Your task to perform on an android device: turn off smart reply in the gmail app Image 0: 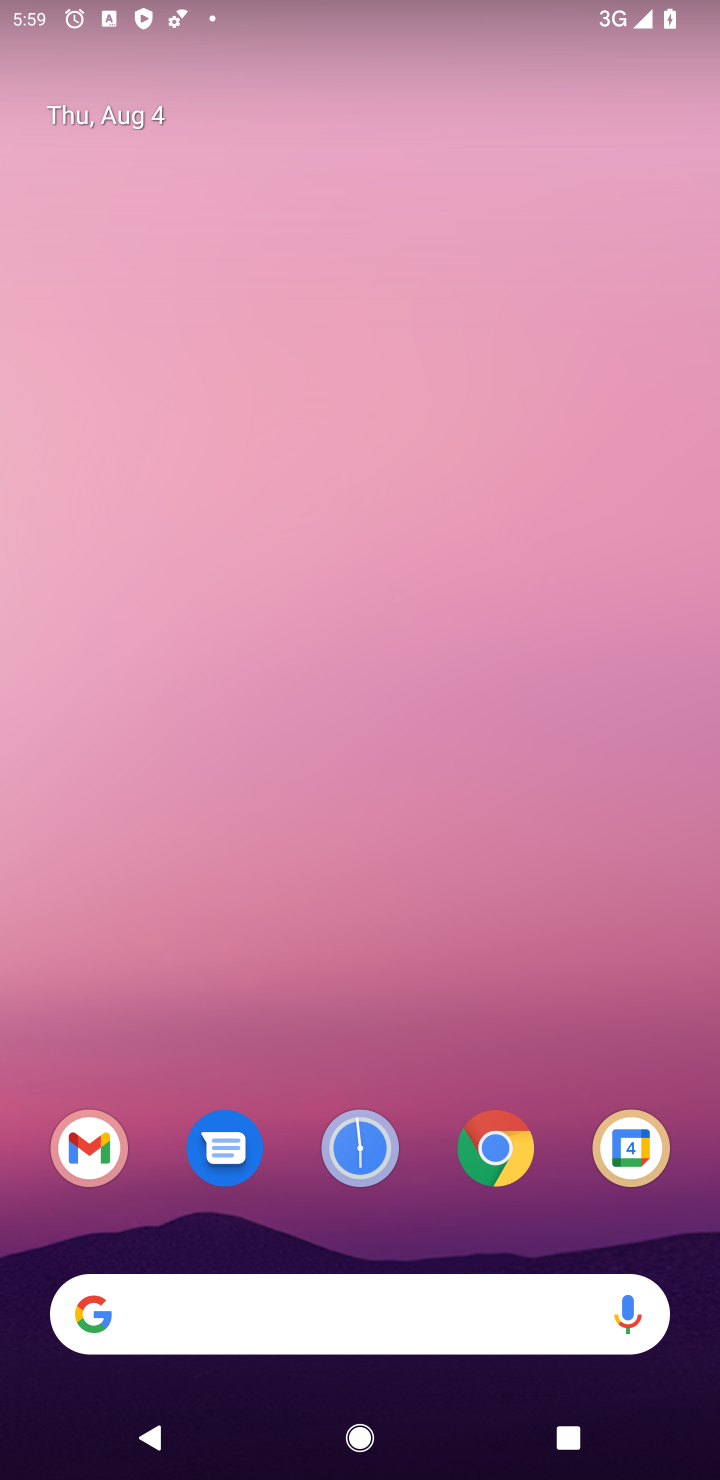
Step 0: click (563, 1214)
Your task to perform on an android device: turn off smart reply in the gmail app Image 1: 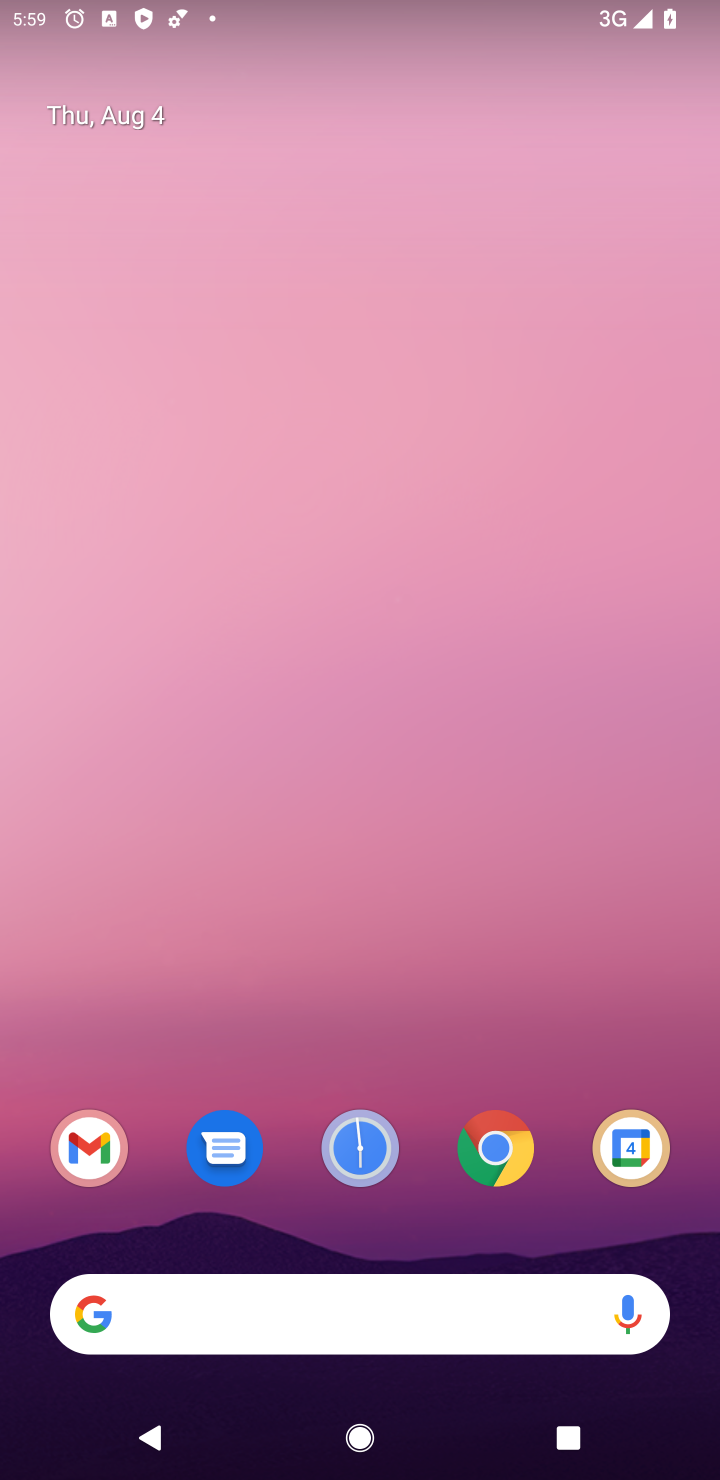
Step 1: click (84, 1153)
Your task to perform on an android device: turn off smart reply in the gmail app Image 2: 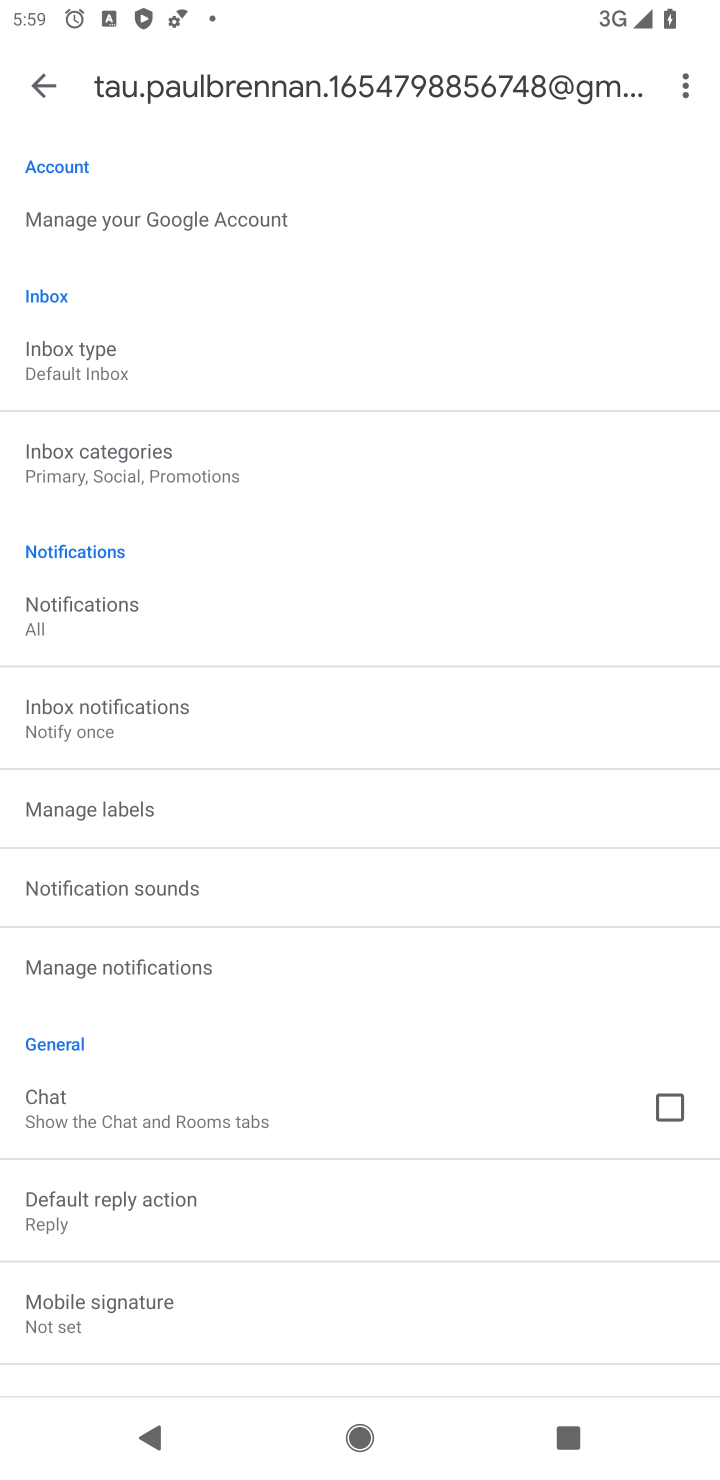
Step 2: task complete